Your task to perform on an android device: turn on improve location accuracy Image 0: 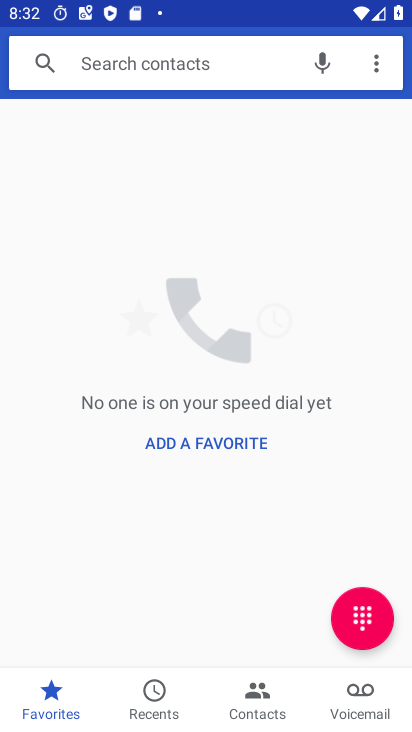
Step 0: press back button
Your task to perform on an android device: turn on improve location accuracy Image 1: 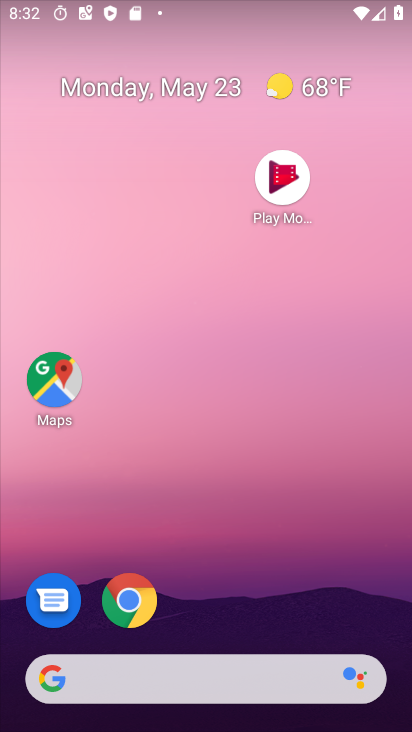
Step 1: drag from (280, 692) to (153, 205)
Your task to perform on an android device: turn on improve location accuracy Image 2: 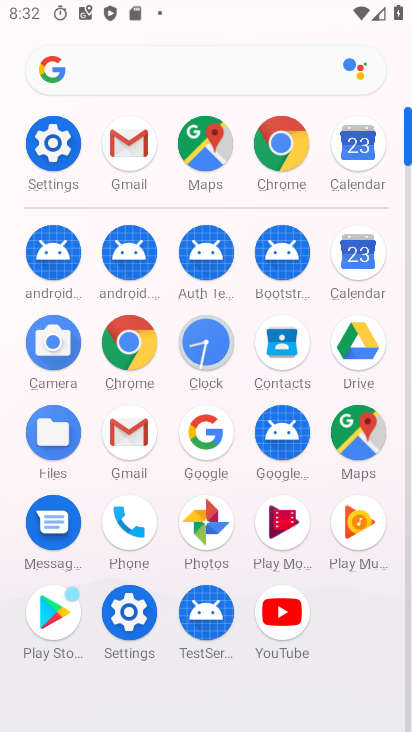
Step 2: click (61, 140)
Your task to perform on an android device: turn on improve location accuracy Image 3: 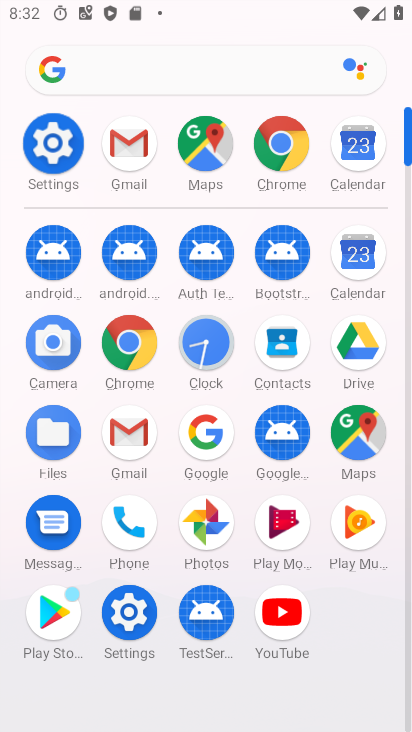
Step 3: click (61, 140)
Your task to perform on an android device: turn on improve location accuracy Image 4: 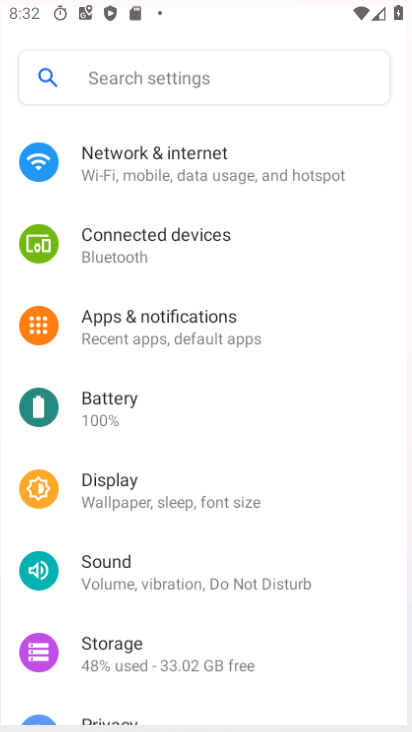
Step 4: click (61, 140)
Your task to perform on an android device: turn on improve location accuracy Image 5: 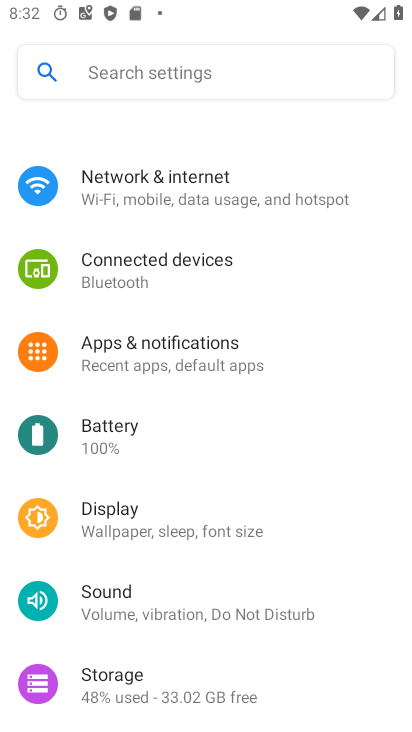
Step 5: click (64, 143)
Your task to perform on an android device: turn on improve location accuracy Image 6: 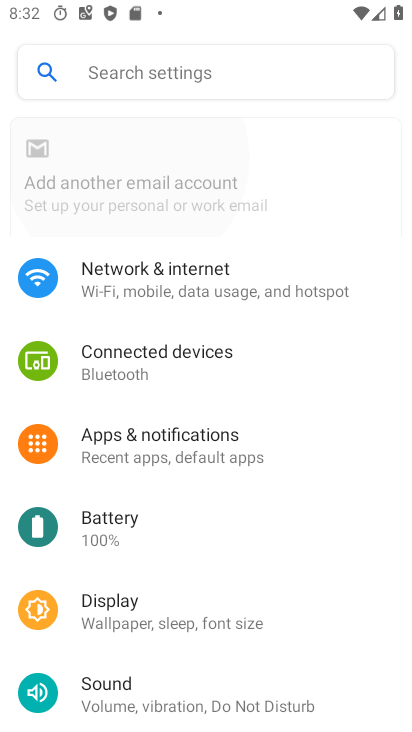
Step 6: click (67, 144)
Your task to perform on an android device: turn on improve location accuracy Image 7: 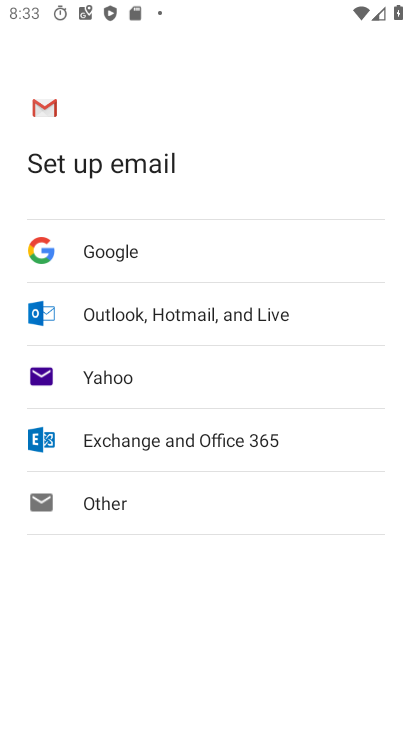
Step 7: press back button
Your task to perform on an android device: turn on improve location accuracy Image 8: 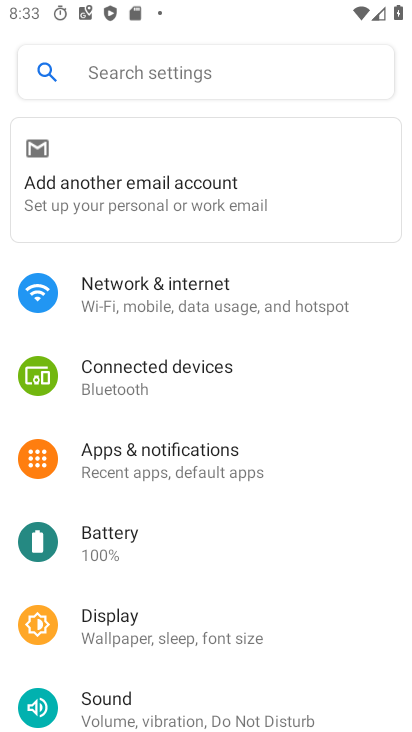
Step 8: drag from (186, 582) to (145, 170)
Your task to perform on an android device: turn on improve location accuracy Image 9: 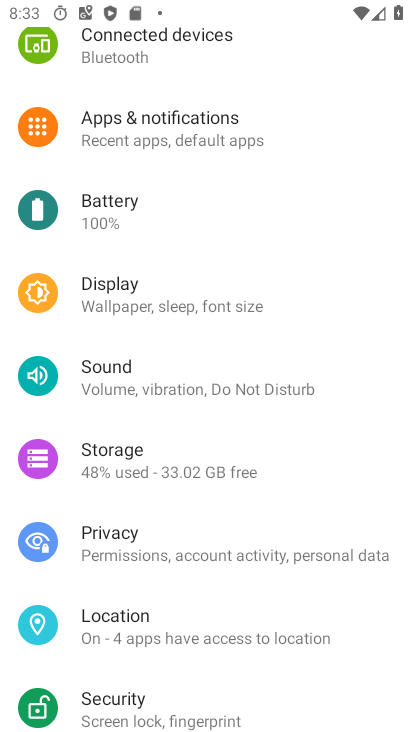
Step 9: drag from (214, 510) to (195, 107)
Your task to perform on an android device: turn on improve location accuracy Image 10: 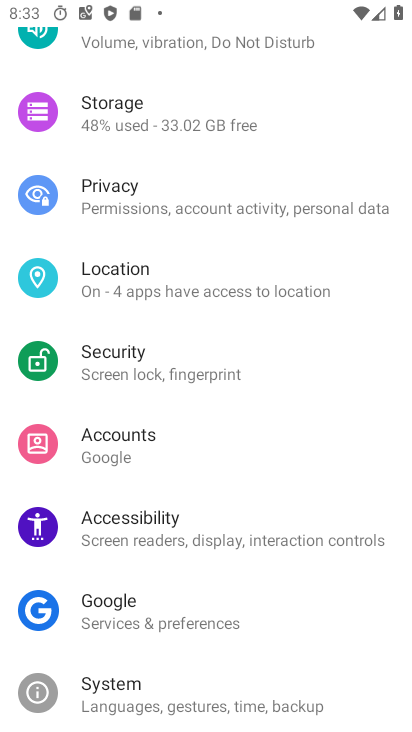
Step 10: click (165, 283)
Your task to perform on an android device: turn on improve location accuracy Image 11: 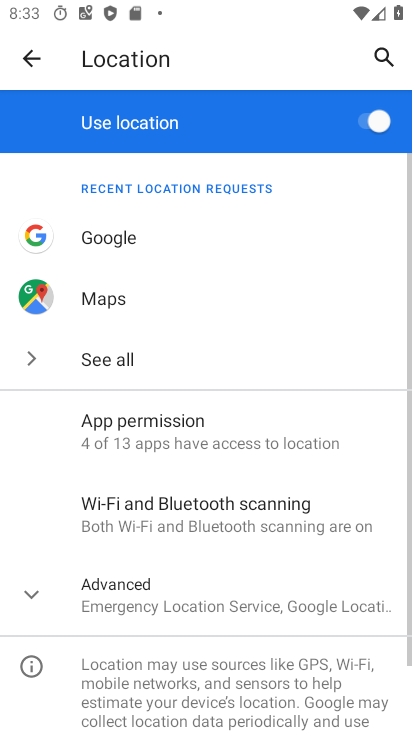
Step 11: click (135, 603)
Your task to perform on an android device: turn on improve location accuracy Image 12: 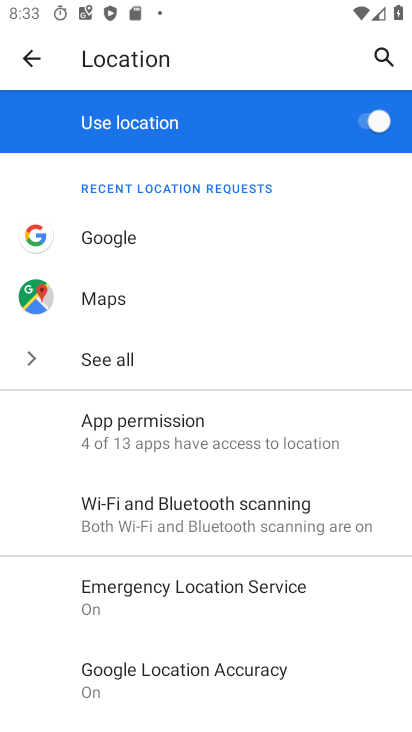
Step 12: drag from (267, 619) to (244, 334)
Your task to perform on an android device: turn on improve location accuracy Image 13: 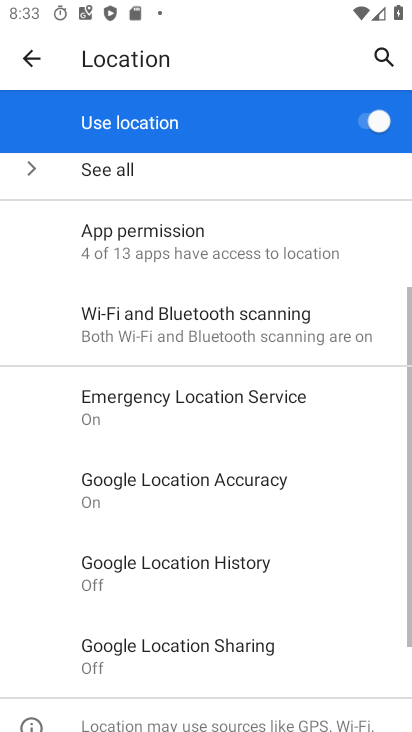
Step 13: drag from (286, 509) to (272, 325)
Your task to perform on an android device: turn on improve location accuracy Image 14: 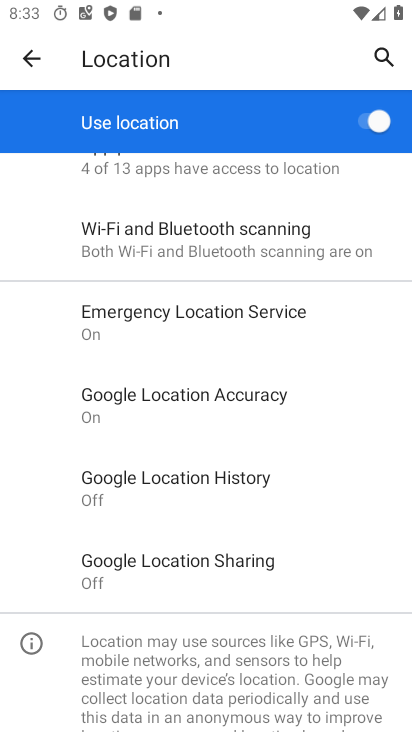
Step 14: click (162, 402)
Your task to perform on an android device: turn on improve location accuracy Image 15: 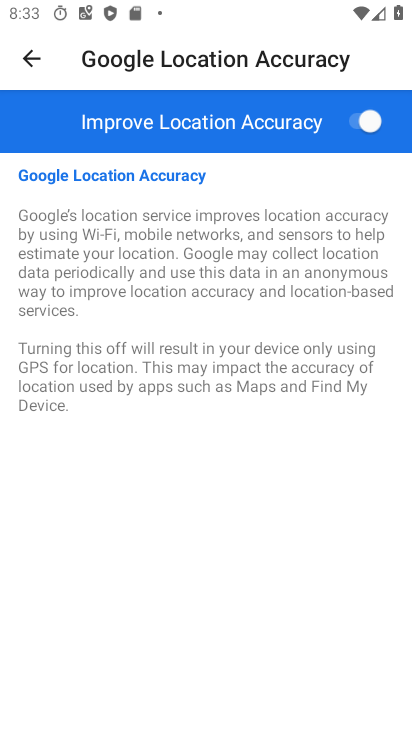
Step 15: click (372, 121)
Your task to perform on an android device: turn on improve location accuracy Image 16: 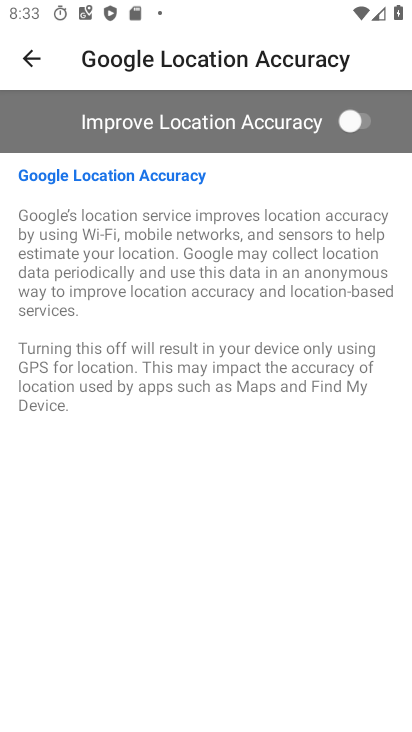
Step 16: click (347, 122)
Your task to perform on an android device: turn on improve location accuracy Image 17: 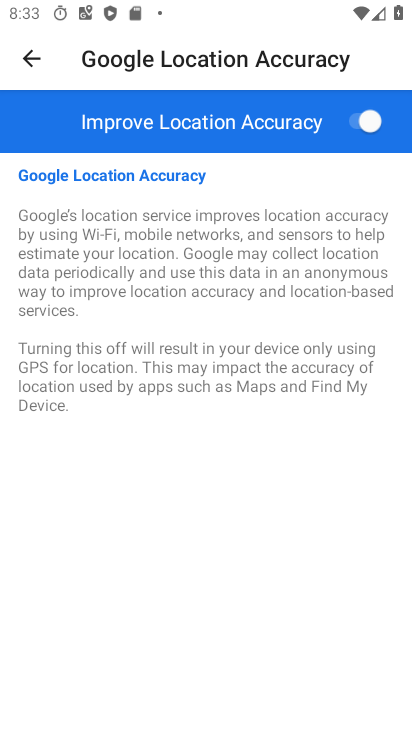
Step 17: click (348, 123)
Your task to perform on an android device: turn on improve location accuracy Image 18: 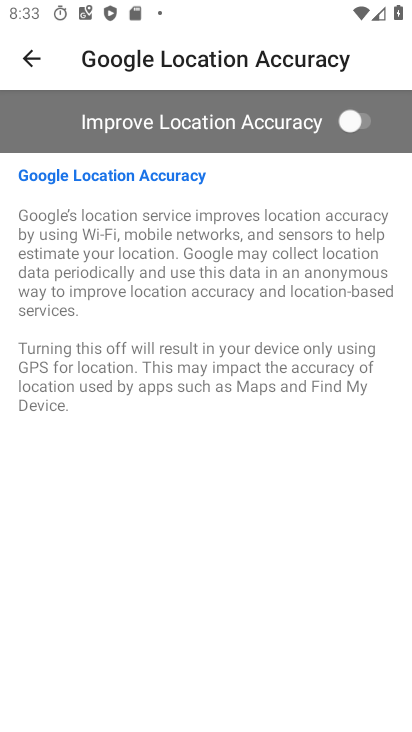
Step 18: click (353, 122)
Your task to perform on an android device: turn on improve location accuracy Image 19: 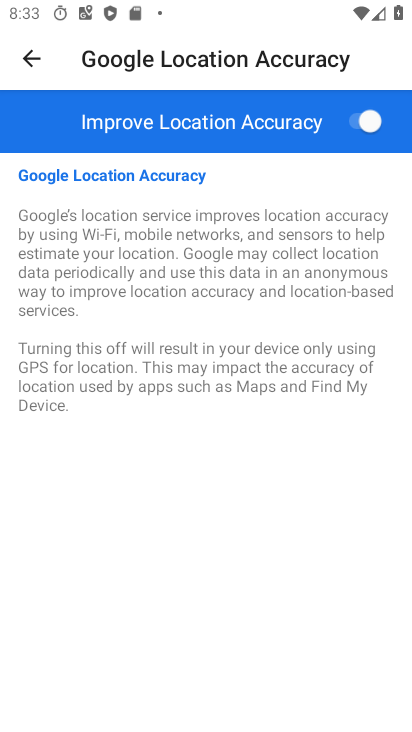
Step 19: task complete